Your task to perform on an android device: Open wifi settings Image 0: 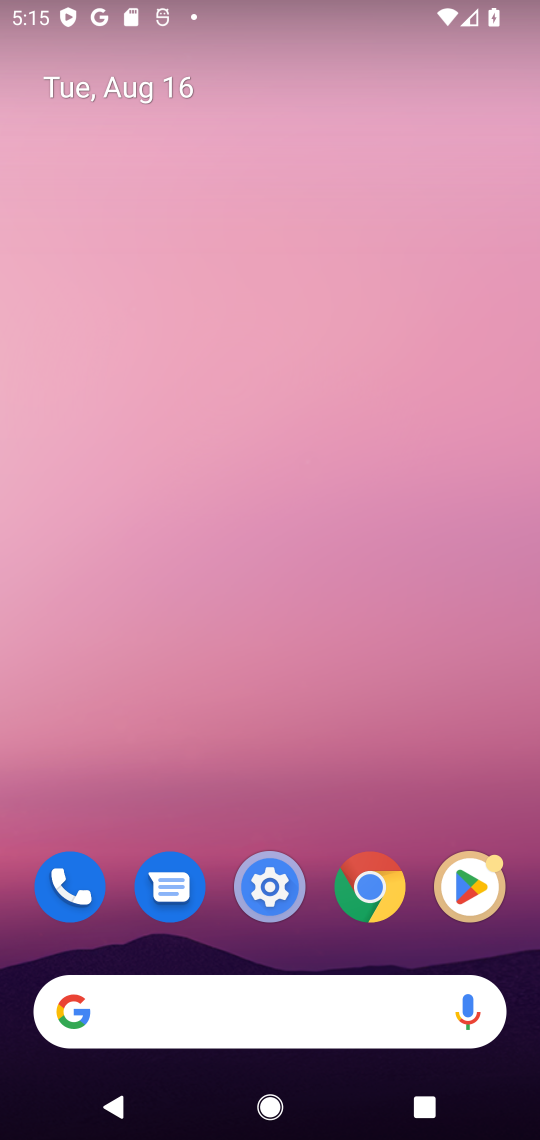
Step 0: drag from (309, 757) to (385, 0)
Your task to perform on an android device: Open wifi settings Image 1: 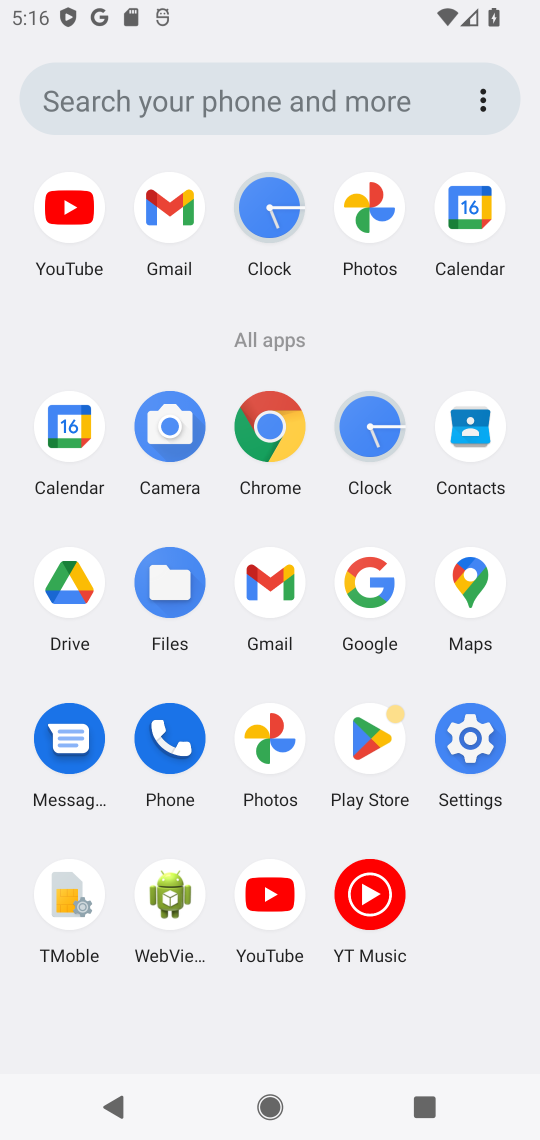
Step 1: click (455, 745)
Your task to perform on an android device: Open wifi settings Image 2: 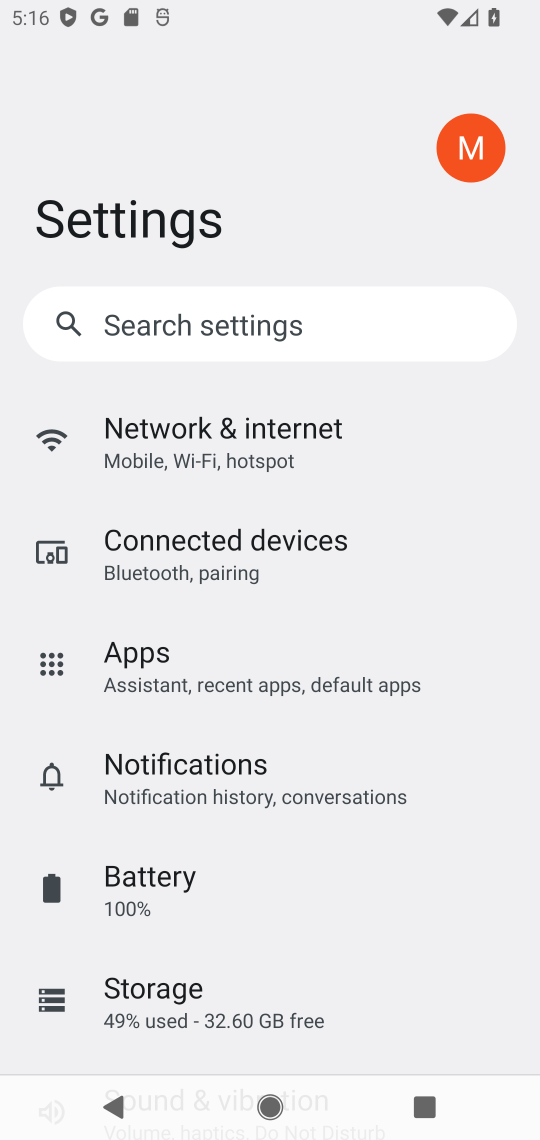
Step 2: click (162, 457)
Your task to perform on an android device: Open wifi settings Image 3: 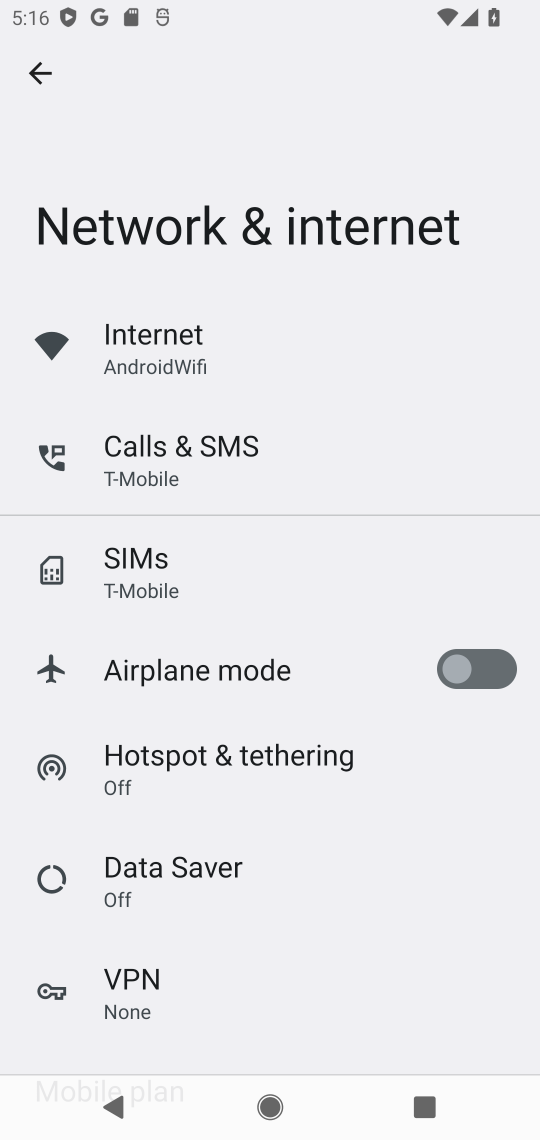
Step 3: click (174, 325)
Your task to perform on an android device: Open wifi settings Image 4: 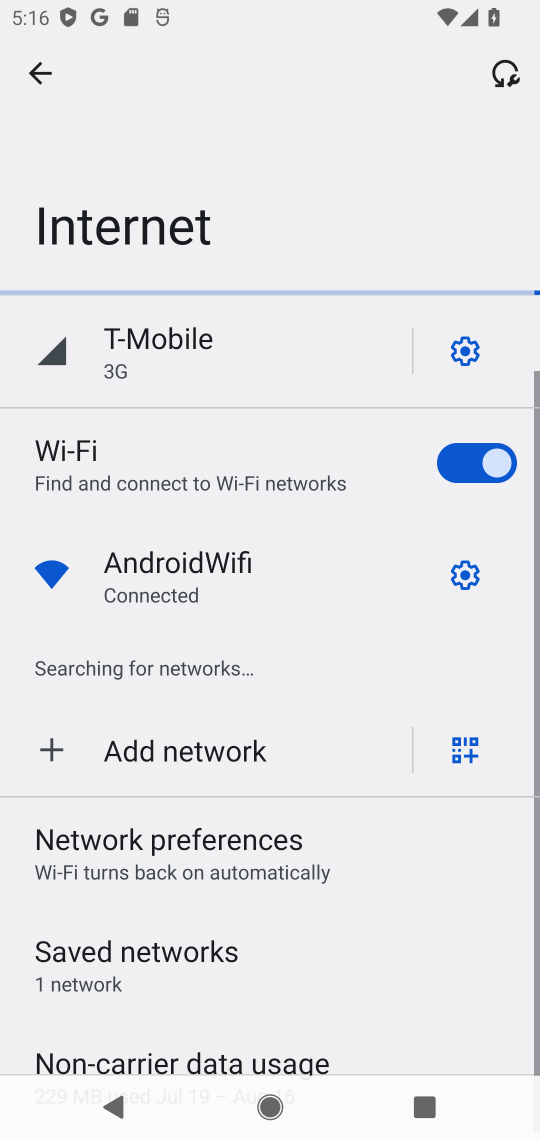
Step 4: click (456, 575)
Your task to perform on an android device: Open wifi settings Image 5: 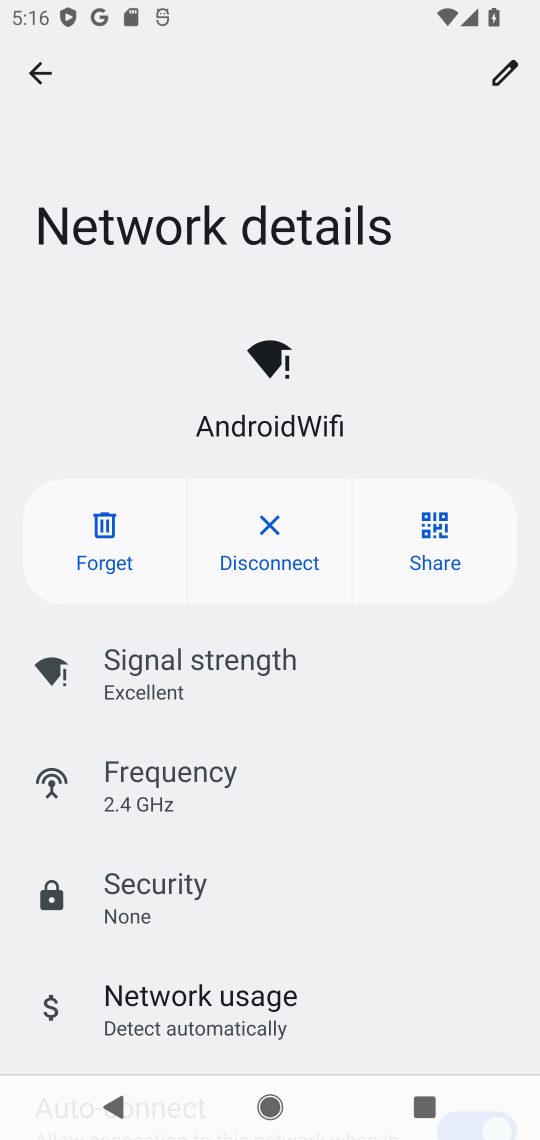
Step 5: task complete